Your task to perform on an android device: Open Yahoo.com Image 0: 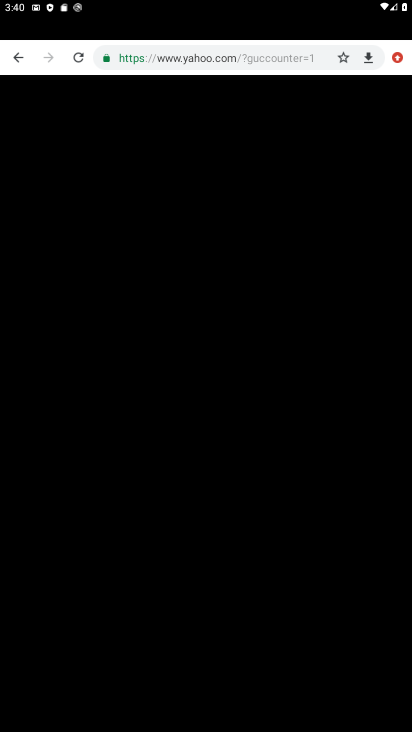
Step 0: press home button
Your task to perform on an android device: Open Yahoo.com Image 1: 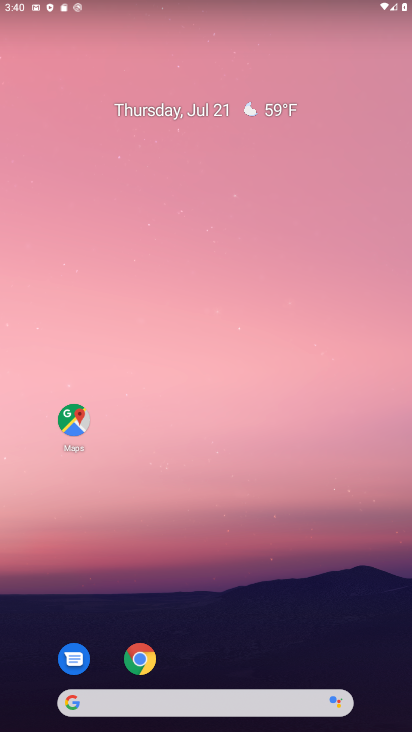
Step 1: click (140, 660)
Your task to perform on an android device: Open Yahoo.com Image 2: 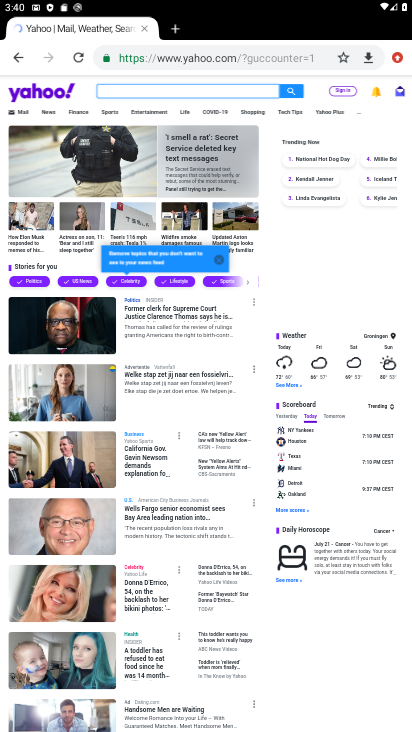
Step 2: click (317, 59)
Your task to perform on an android device: Open Yahoo.com Image 3: 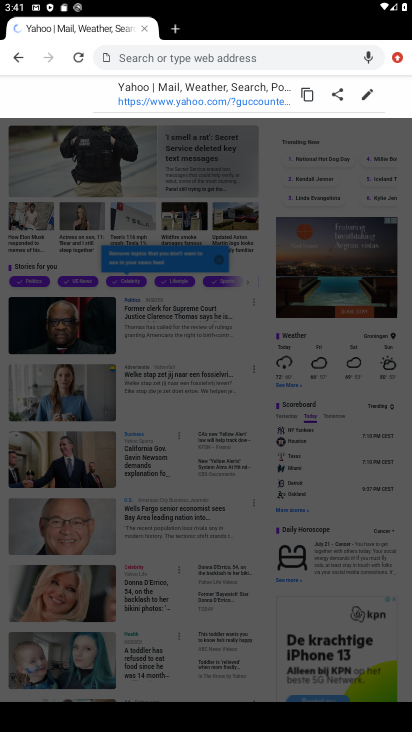
Step 3: type "Yahoo.com"
Your task to perform on an android device: Open Yahoo.com Image 4: 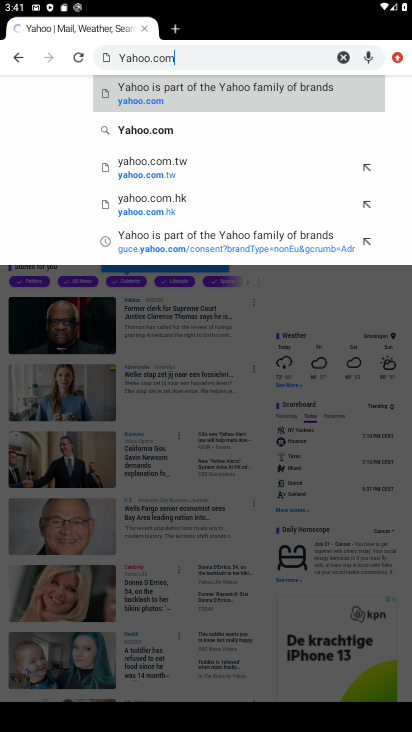
Step 4: click (167, 131)
Your task to perform on an android device: Open Yahoo.com Image 5: 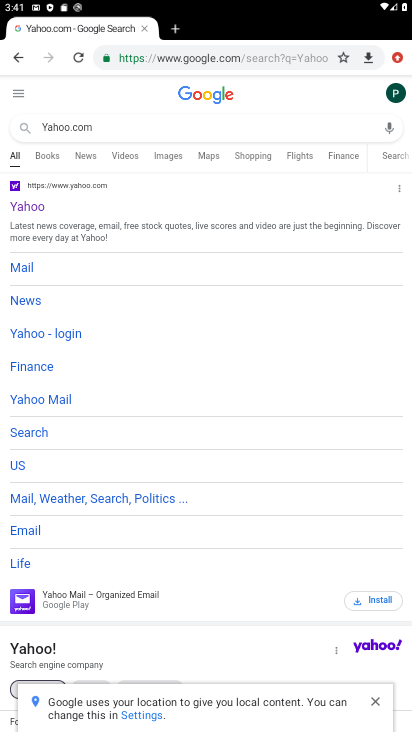
Step 5: click (35, 207)
Your task to perform on an android device: Open Yahoo.com Image 6: 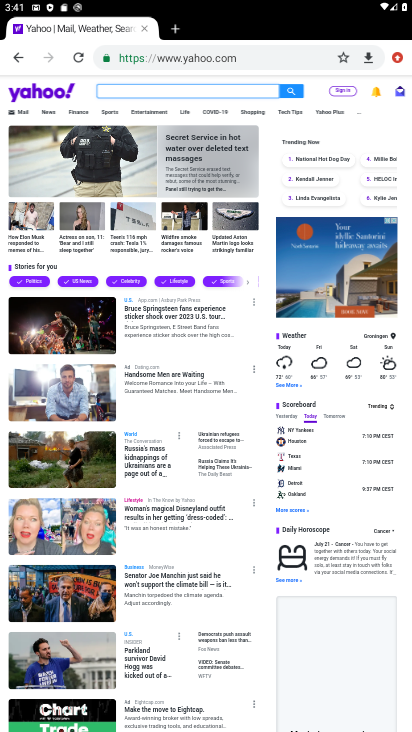
Step 6: task complete